Your task to perform on an android device: Find coffee shops on Maps Image 0: 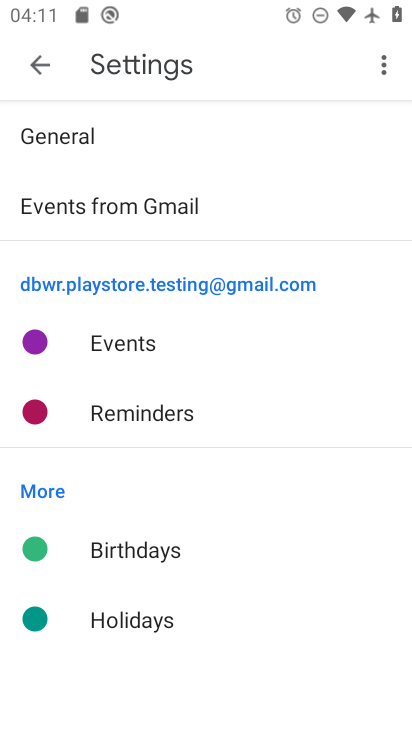
Step 0: press home button
Your task to perform on an android device: Find coffee shops on Maps Image 1: 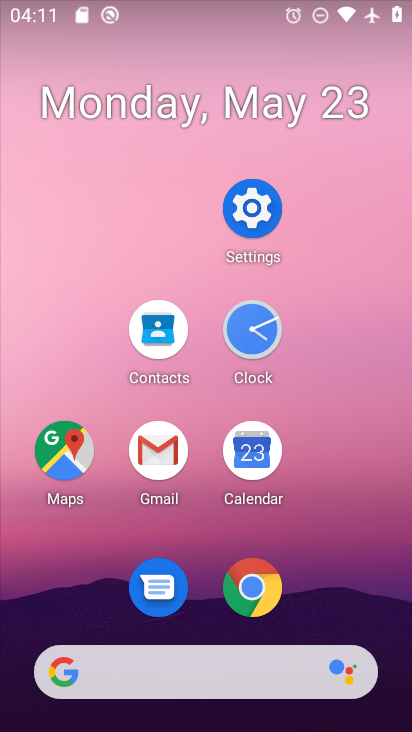
Step 1: click (56, 483)
Your task to perform on an android device: Find coffee shops on Maps Image 2: 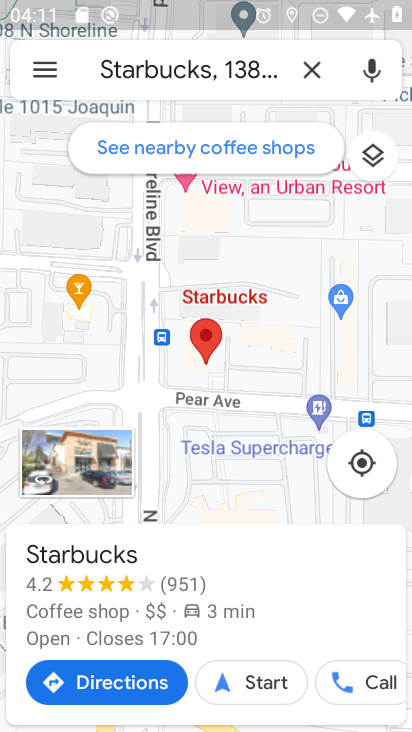
Step 2: task complete